Your task to perform on an android device: Go to Yahoo.com Image 0: 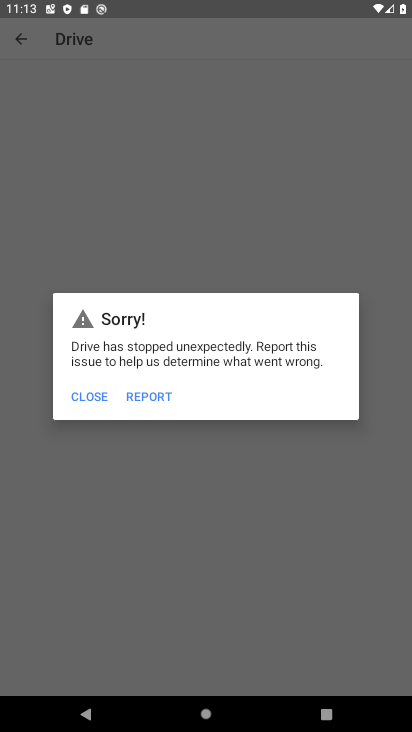
Step 0: press home button
Your task to perform on an android device: Go to Yahoo.com Image 1: 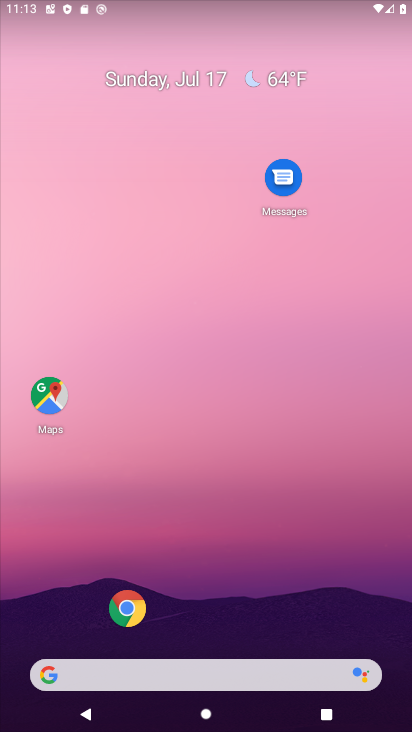
Step 1: click (116, 683)
Your task to perform on an android device: Go to Yahoo.com Image 2: 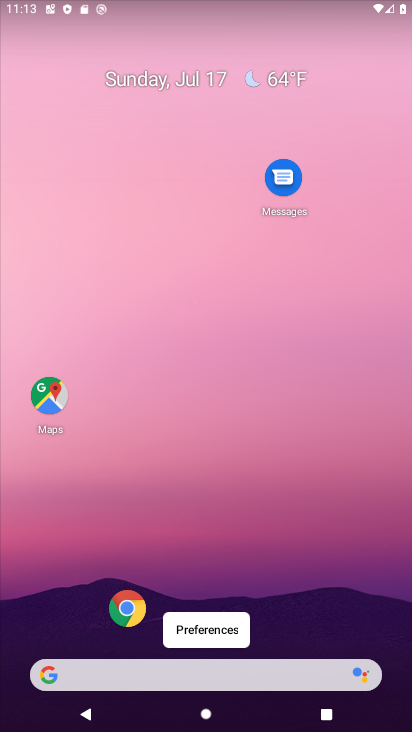
Step 2: click (93, 671)
Your task to perform on an android device: Go to Yahoo.com Image 3: 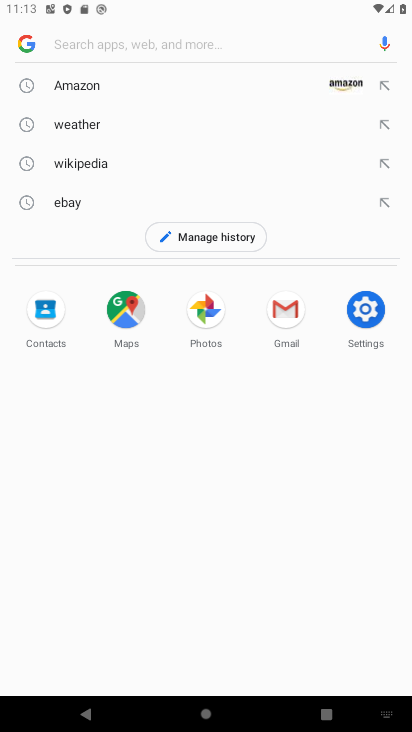
Step 3: type "Yahoo.com"
Your task to perform on an android device: Go to Yahoo.com Image 4: 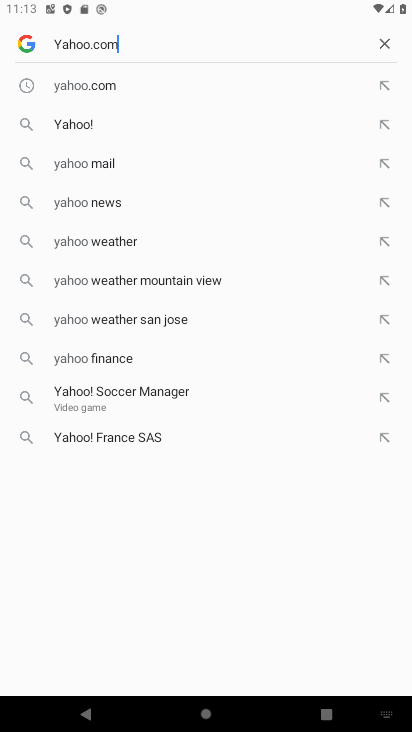
Step 4: type ""
Your task to perform on an android device: Go to Yahoo.com Image 5: 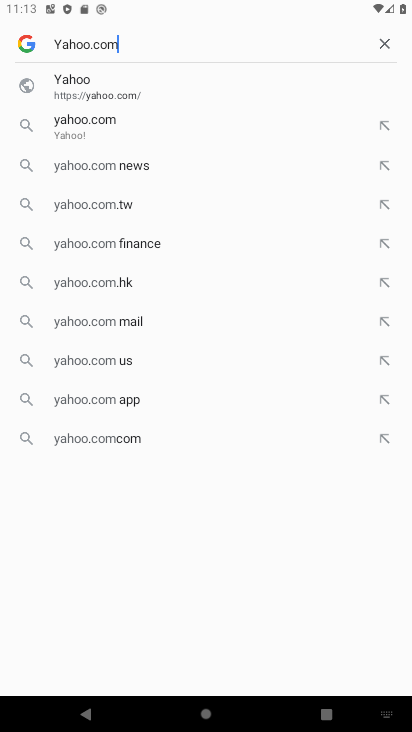
Step 5: type ""
Your task to perform on an android device: Go to Yahoo.com Image 6: 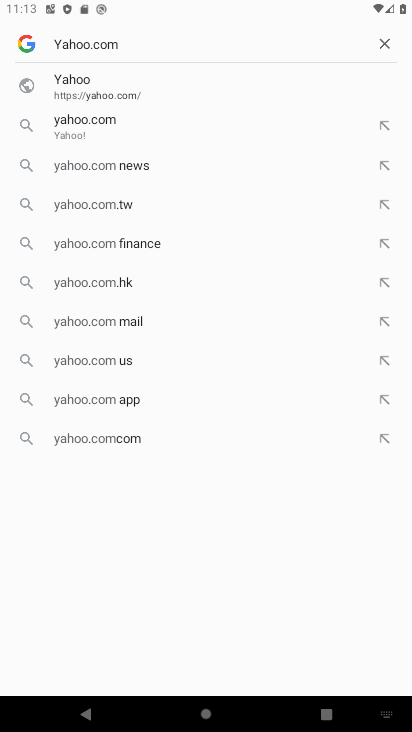
Step 6: type ""
Your task to perform on an android device: Go to Yahoo.com Image 7: 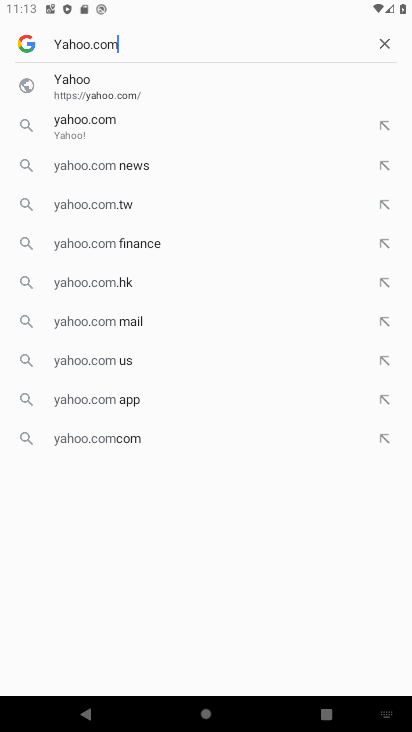
Step 7: type ""
Your task to perform on an android device: Go to Yahoo.com Image 8: 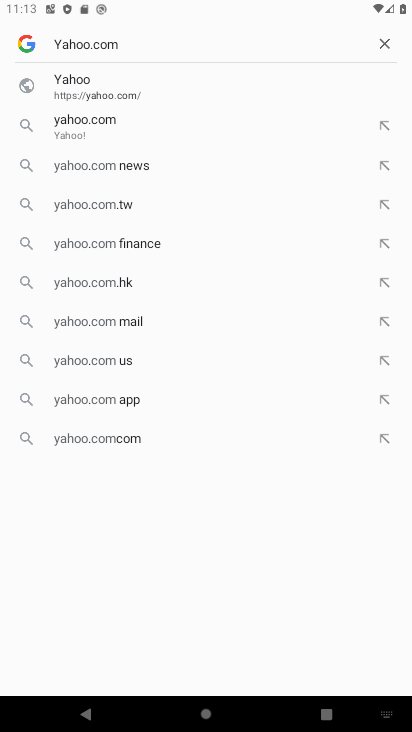
Step 8: click (63, 88)
Your task to perform on an android device: Go to Yahoo.com Image 9: 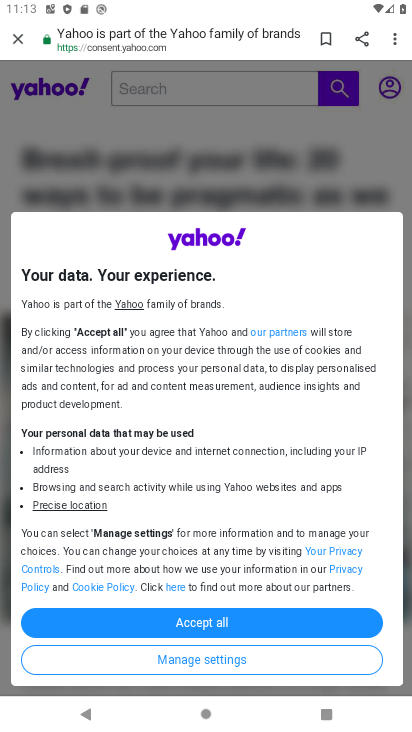
Step 9: task complete